Your task to perform on an android device: Open Google Chrome Image 0: 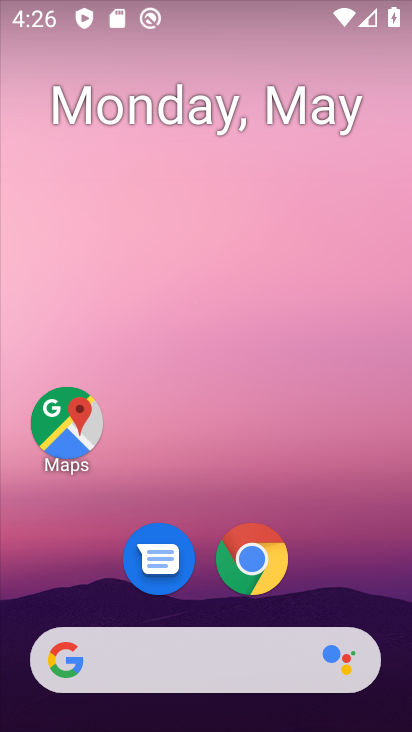
Step 0: drag from (297, 631) to (290, 75)
Your task to perform on an android device: Open Google Chrome Image 1: 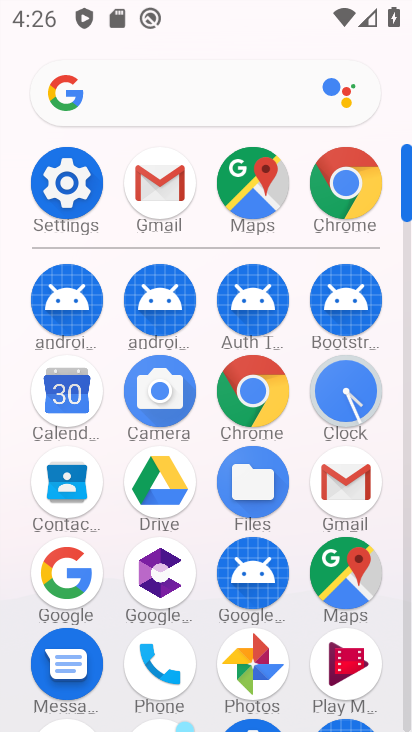
Step 1: click (253, 388)
Your task to perform on an android device: Open Google Chrome Image 2: 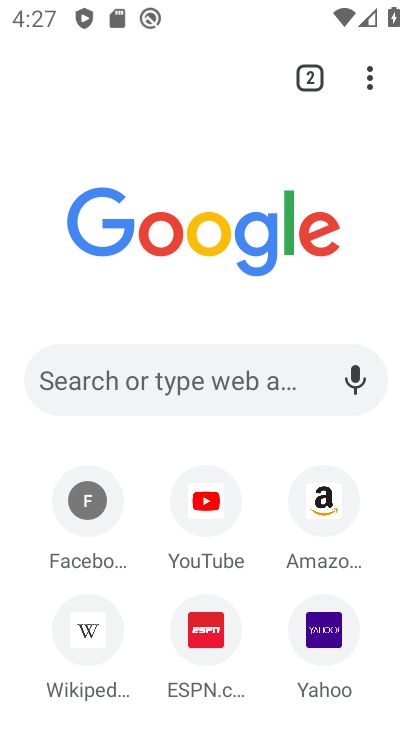
Step 2: task complete